Your task to perform on an android device: set the stopwatch Image 0: 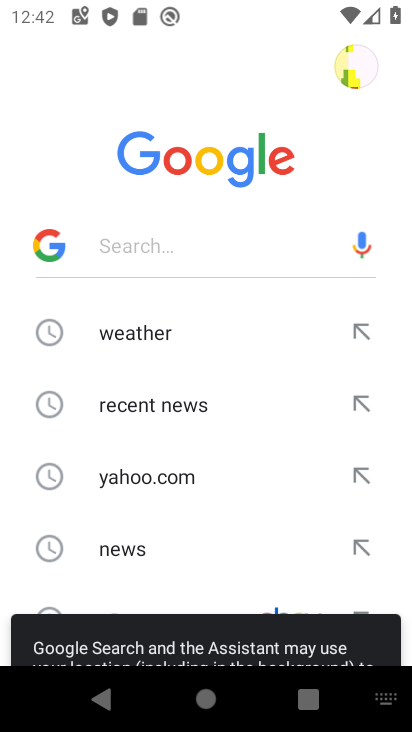
Step 0: press home button
Your task to perform on an android device: set the stopwatch Image 1: 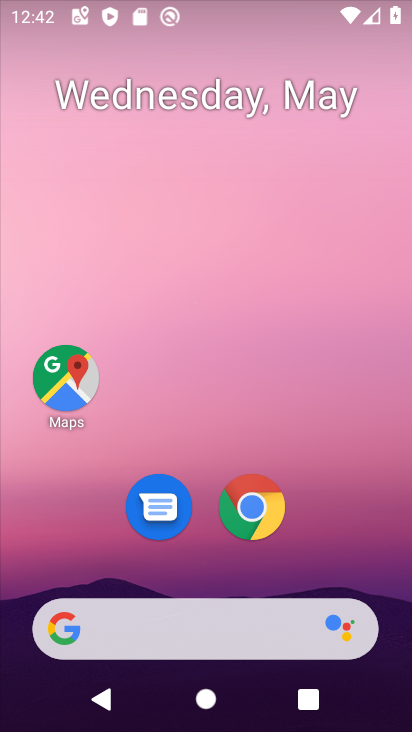
Step 1: drag from (274, 549) to (298, 141)
Your task to perform on an android device: set the stopwatch Image 2: 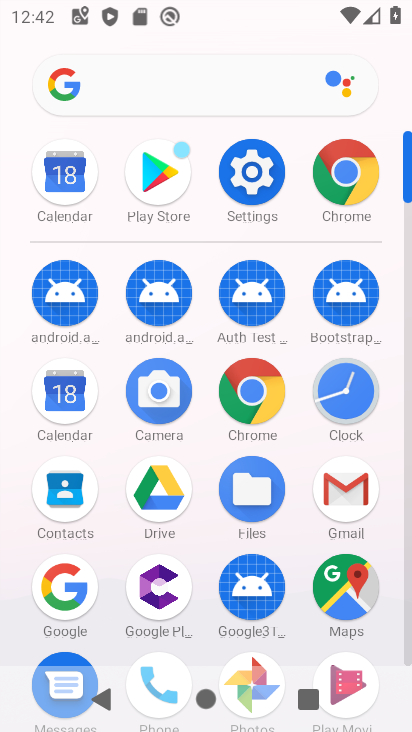
Step 2: click (339, 381)
Your task to perform on an android device: set the stopwatch Image 3: 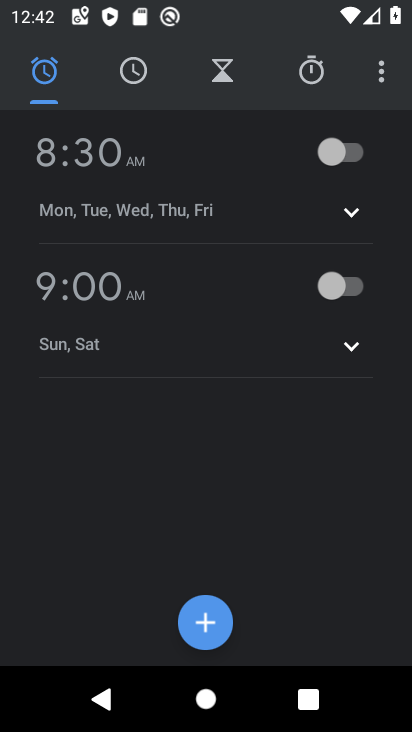
Step 3: click (307, 62)
Your task to perform on an android device: set the stopwatch Image 4: 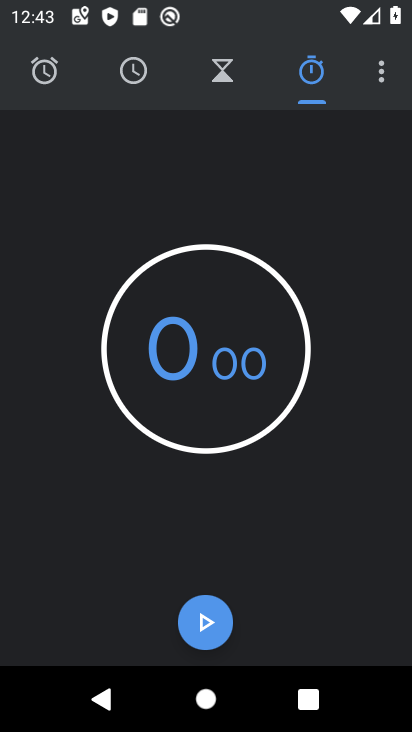
Step 4: task complete